Your task to perform on an android device: change the clock display to analog Image 0: 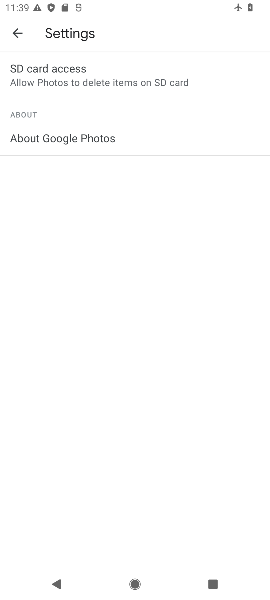
Step 0: press home button
Your task to perform on an android device: change the clock display to analog Image 1: 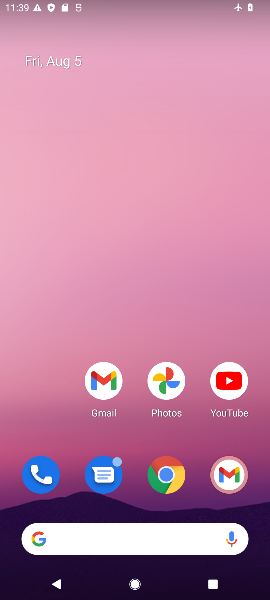
Step 1: drag from (109, 495) to (269, 129)
Your task to perform on an android device: change the clock display to analog Image 2: 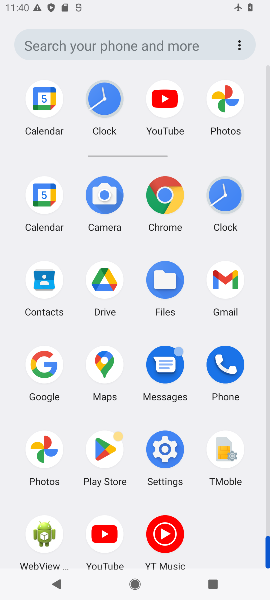
Step 2: click (158, 461)
Your task to perform on an android device: change the clock display to analog Image 3: 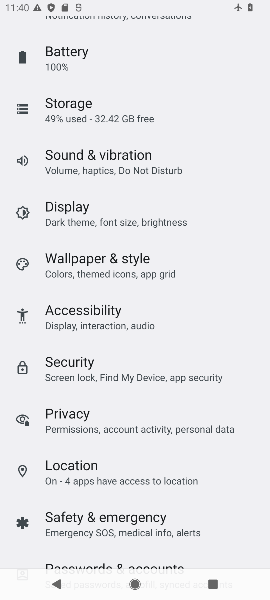
Step 3: press home button
Your task to perform on an android device: change the clock display to analog Image 4: 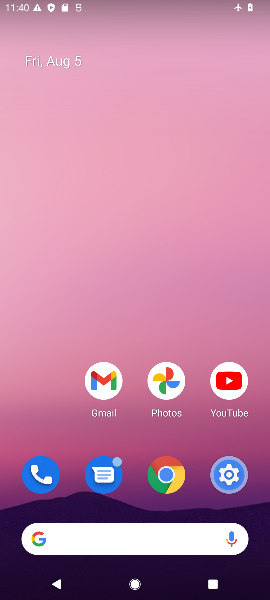
Step 4: drag from (162, 511) to (194, 3)
Your task to perform on an android device: change the clock display to analog Image 5: 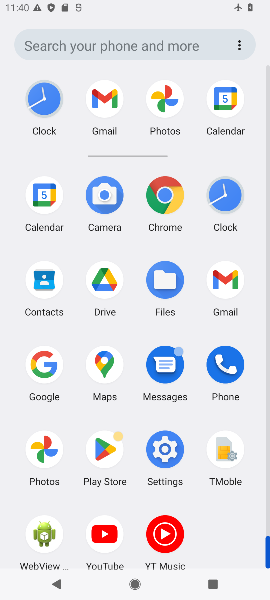
Step 5: click (231, 204)
Your task to perform on an android device: change the clock display to analog Image 6: 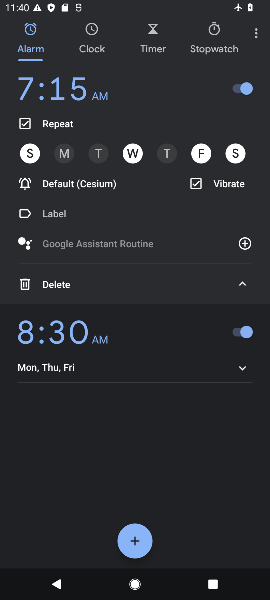
Step 6: click (259, 29)
Your task to perform on an android device: change the clock display to analog Image 7: 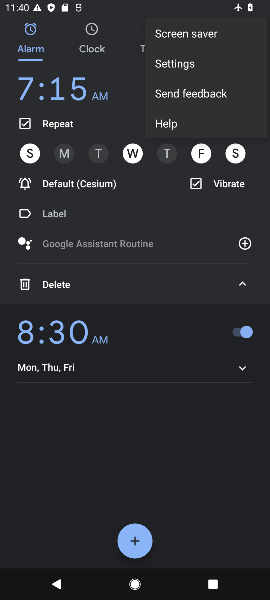
Step 7: click (198, 63)
Your task to perform on an android device: change the clock display to analog Image 8: 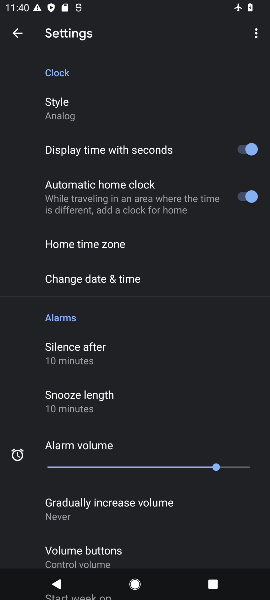
Step 8: click (74, 118)
Your task to perform on an android device: change the clock display to analog Image 9: 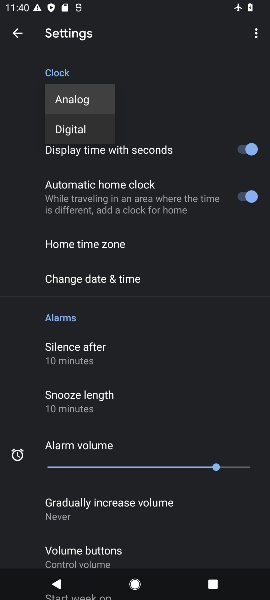
Step 9: click (83, 135)
Your task to perform on an android device: change the clock display to analog Image 10: 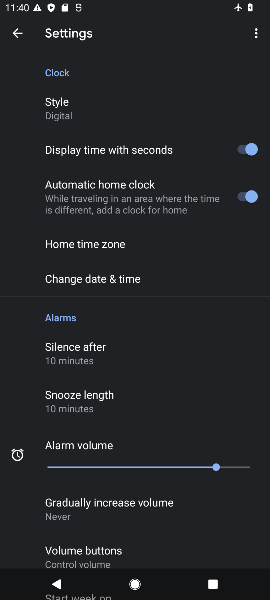
Step 10: task complete